Your task to perform on an android device: Open the Play Movies app and select the watchlist tab. Image 0: 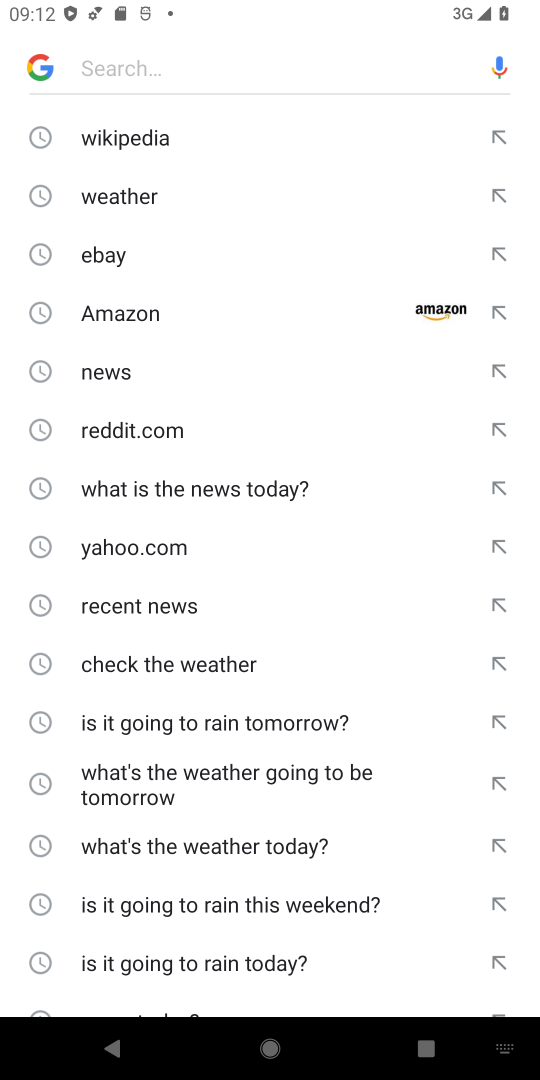
Step 0: press home button
Your task to perform on an android device: Open the Play Movies app and select the watchlist tab. Image 1: 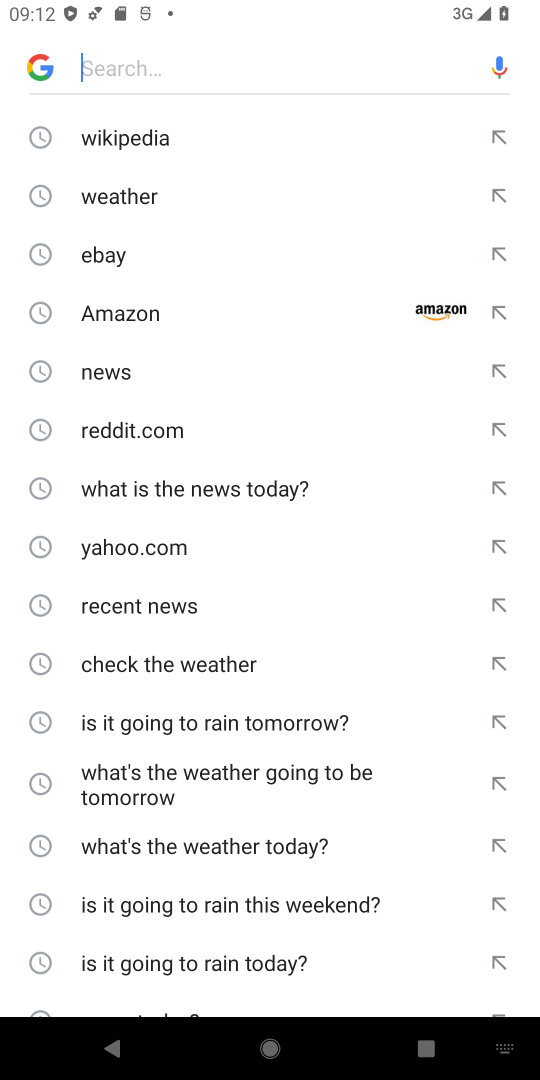
Step 1: press home button
Your task to perform on an android device: Open the Play Movies app and select the watchlist tab. Image 2: 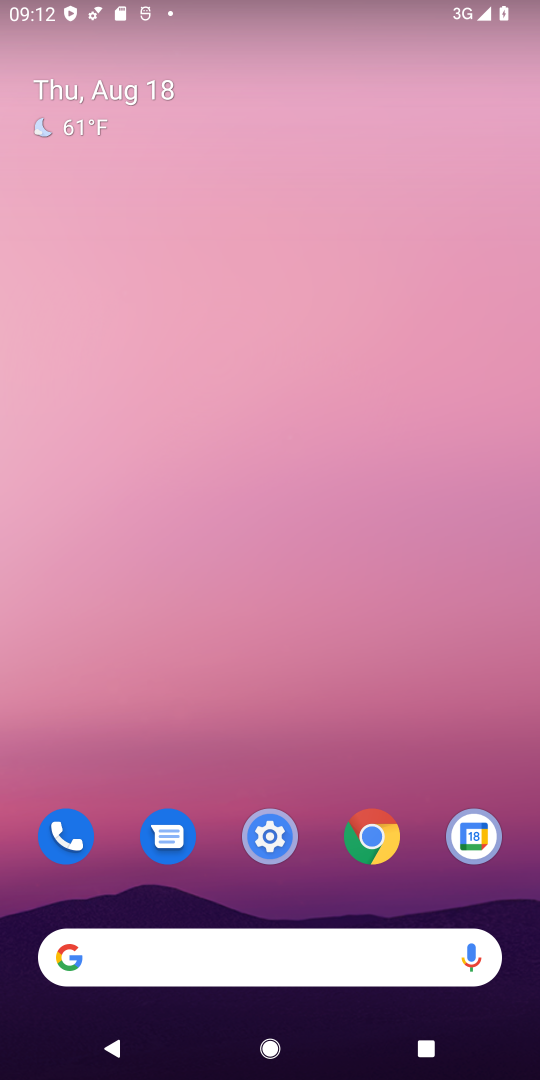
Step 2: drag from (428, 741) to (506, 69)
Your task to perform on an android device: Open the Play Movies app and select the watchlist tab. Image 3: 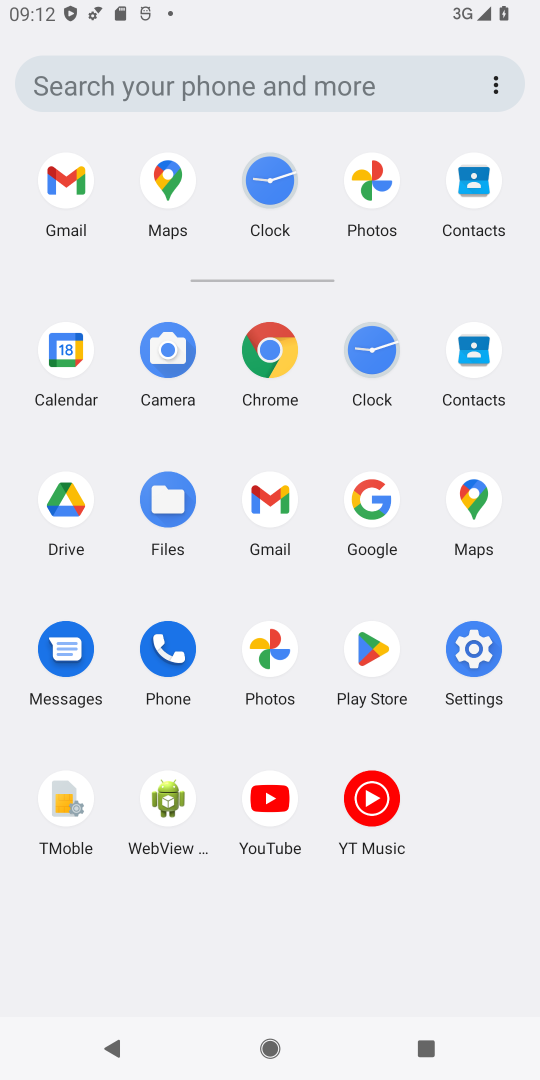
Step 3: click (369, 656)
Your task to perform on an android device: Open the Play Movies app and select the watchlist tab. Image 4: 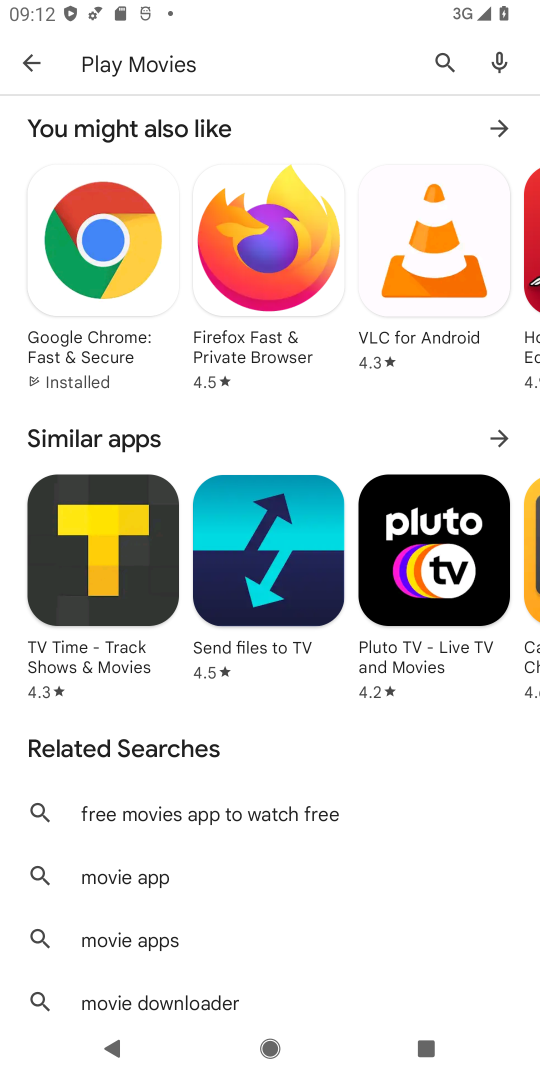
Step 4: task complete